Your task to perform on an android device: Install the eBay app Image 0: 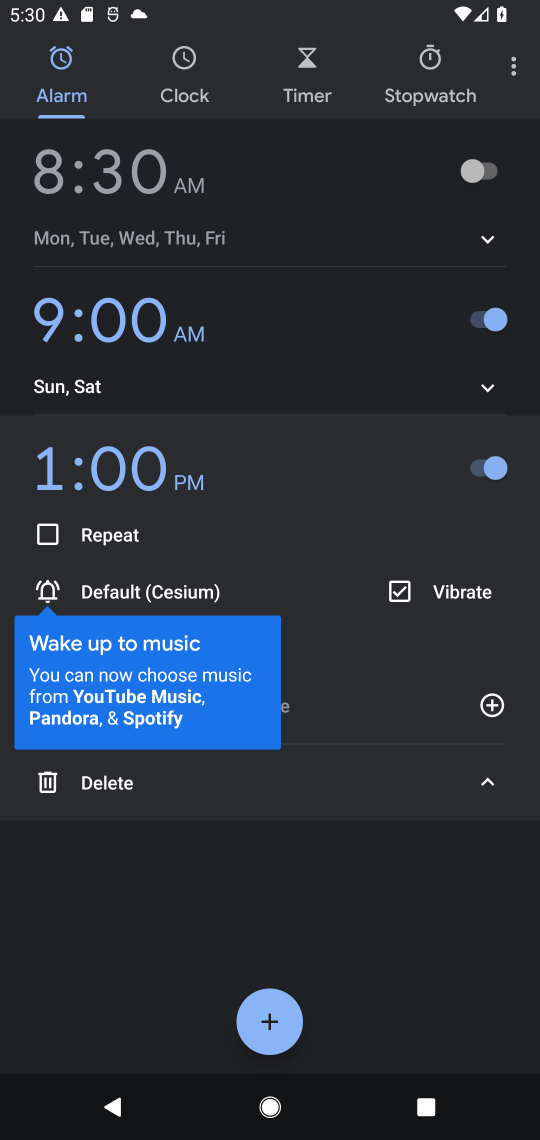
Step 0: press home button
Your task to perform on an android device: Install the eBay app Image 1: 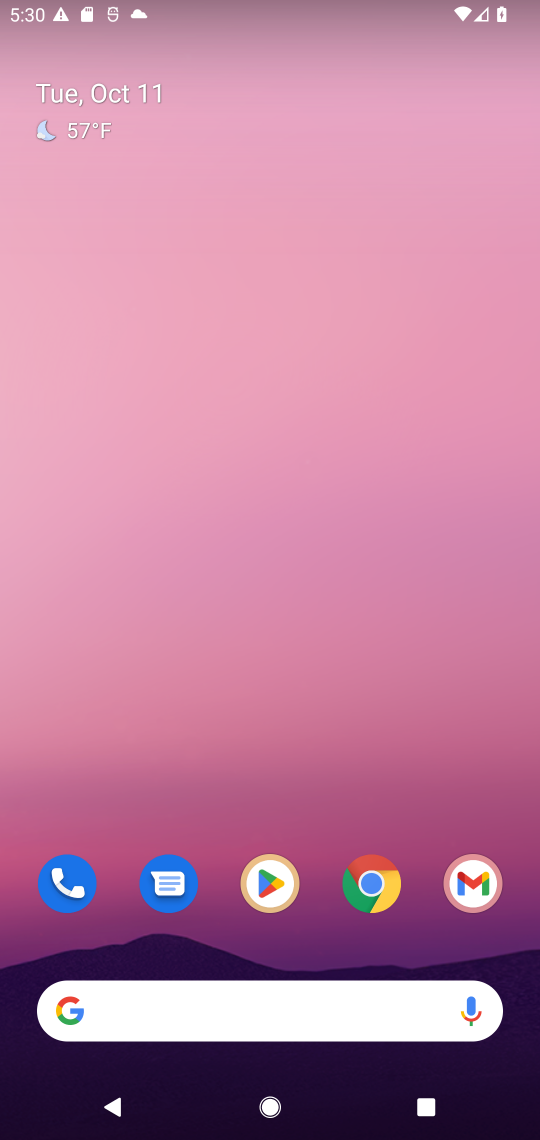
Step 1: drag from (339, 925) to (318, 264)
Your task to perform on an android device: Install the eBay app Image 2: 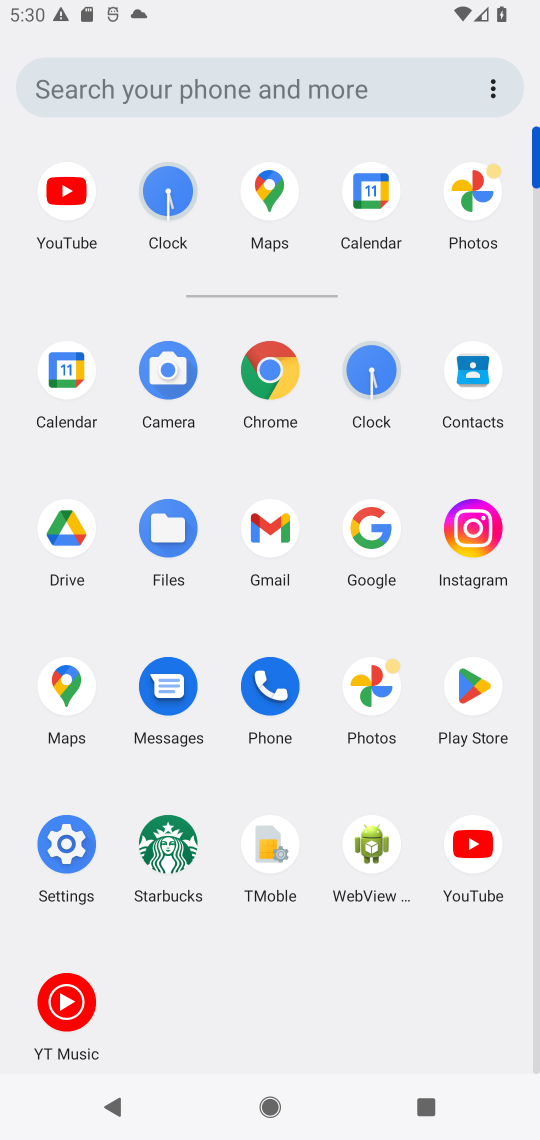
Step 2: click (482, 677)
Your task to perform on an android device: Install the eBay app Image 3: 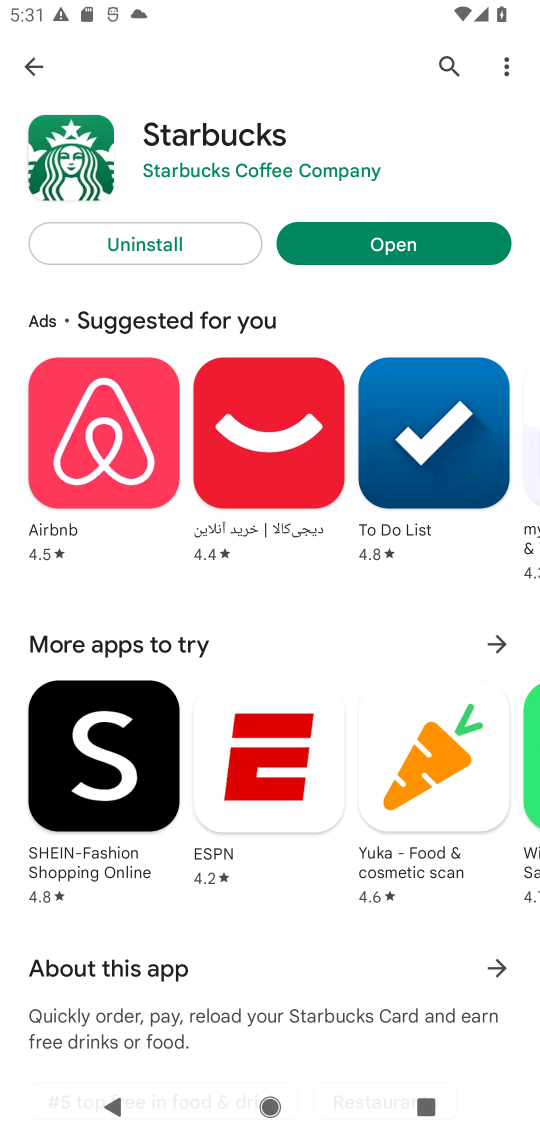
Step 3: click (467, 58)
Your task to perform on an android device: Install the eBay app Image 4: 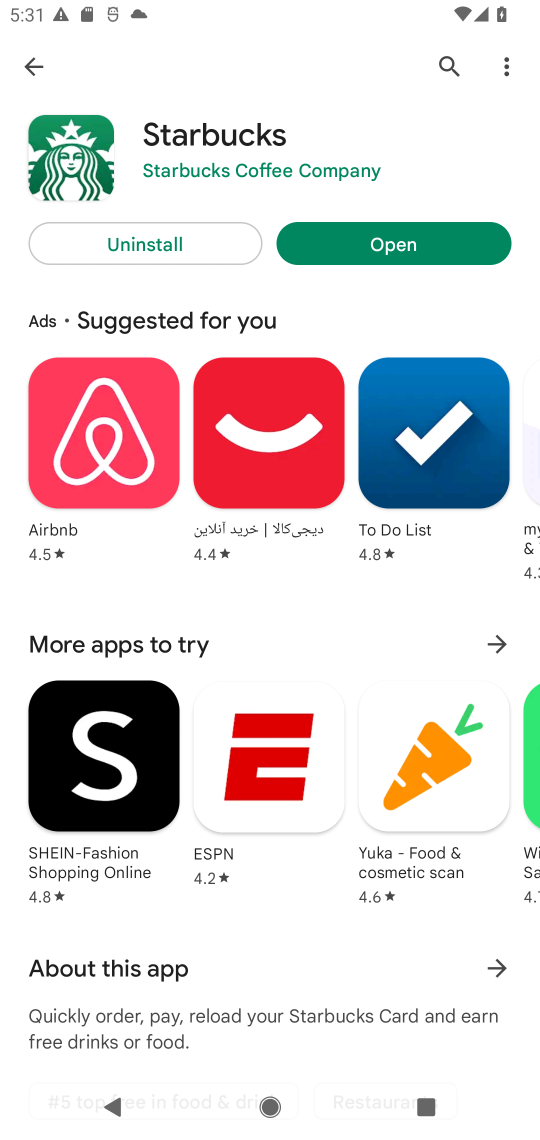
Step 4: click (444, 64)
Your task to perform on an android device: Install the eBay app Image 5: 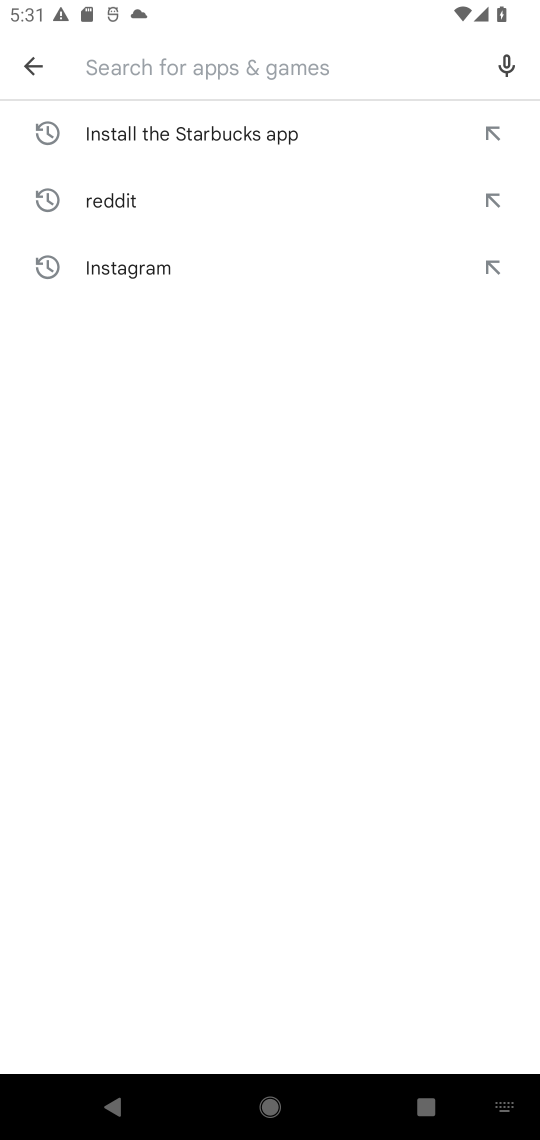
Step 5: type "eBay"
Your task to perform on an android device: Install the eBay app Image 6: 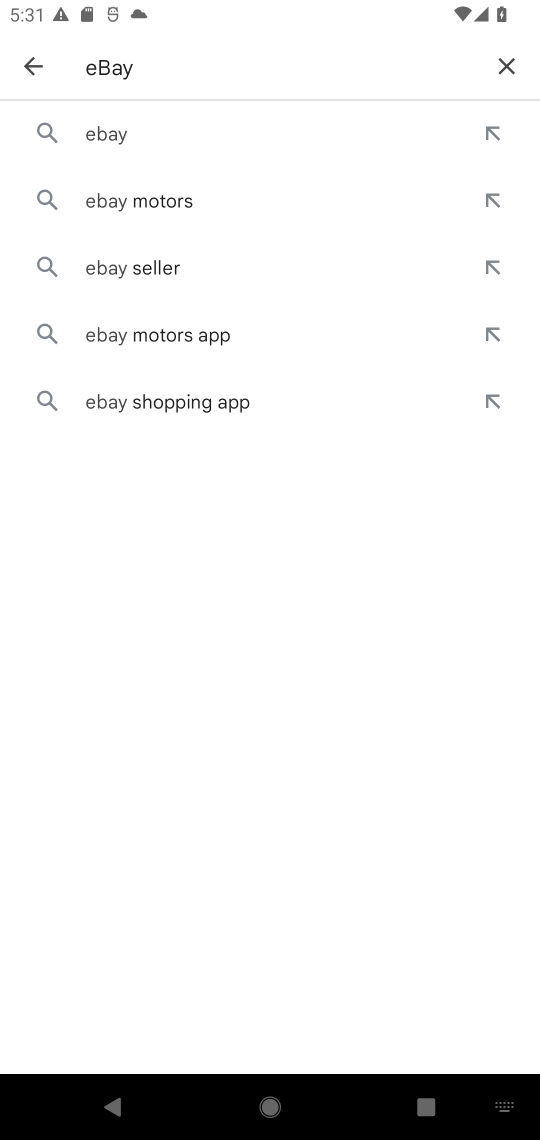
Step 6: press enter
Your task to perform on an android device: Install the eBay app Image 7: 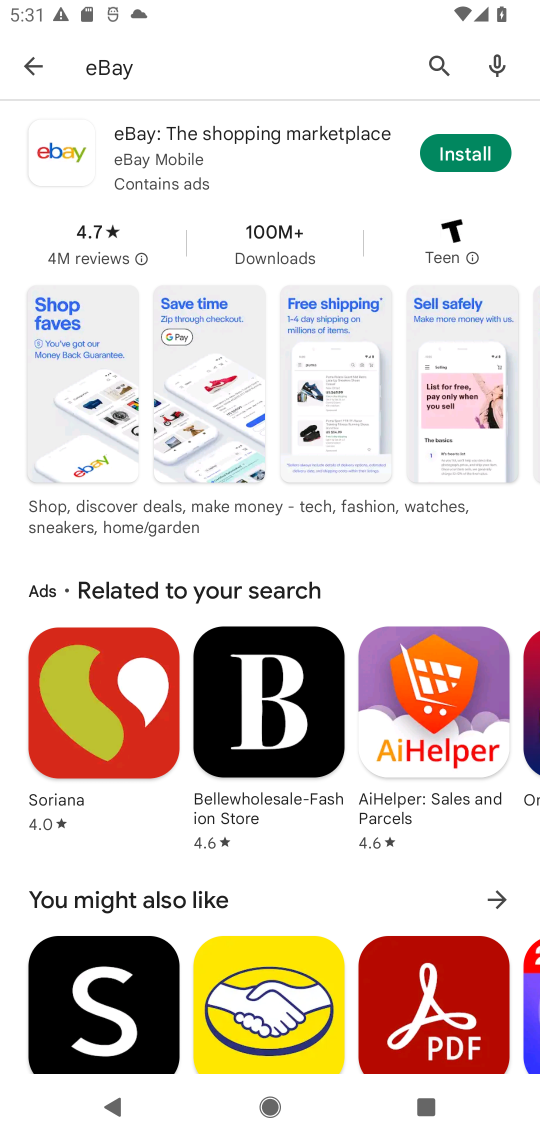
Step 7: click (480, 144)
Your task to perform on an android device: Install the eBay app Image 8: 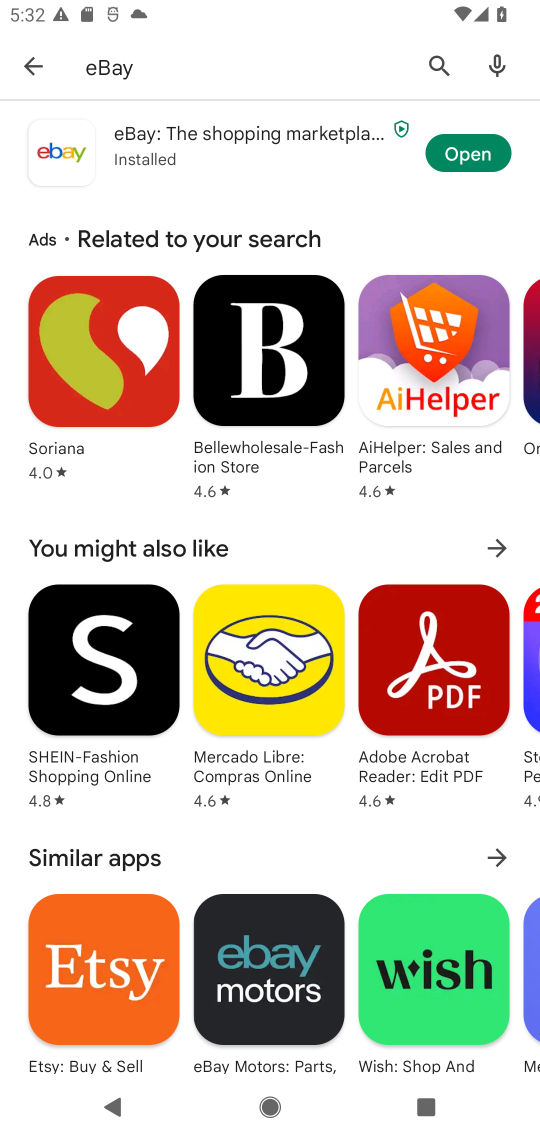
Step 8: task complete